Your task to perform on an android device: change text size in settings app Image 0: 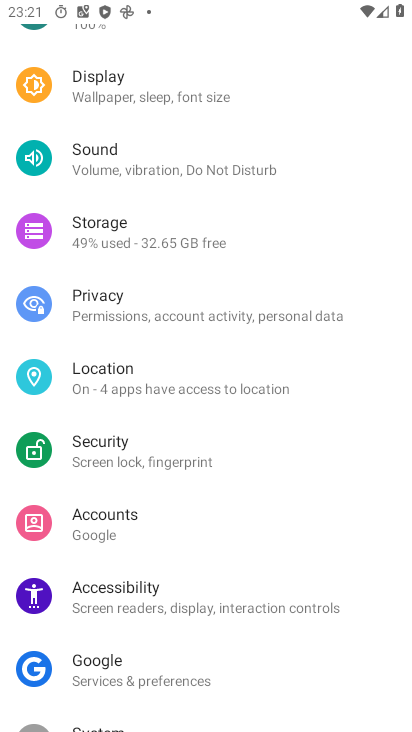
Step 0: press home button
Your task to perform on an android device: change text size in settings app Image 1: 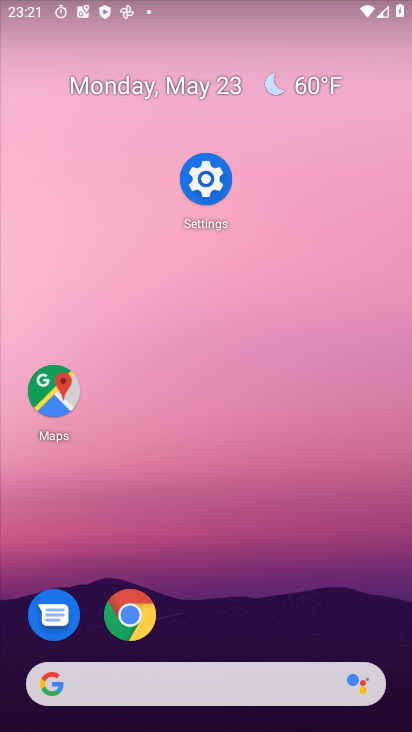
Step 1: click (208, 166)
Your task to perform on an android device: change text size in settings app Image 2: 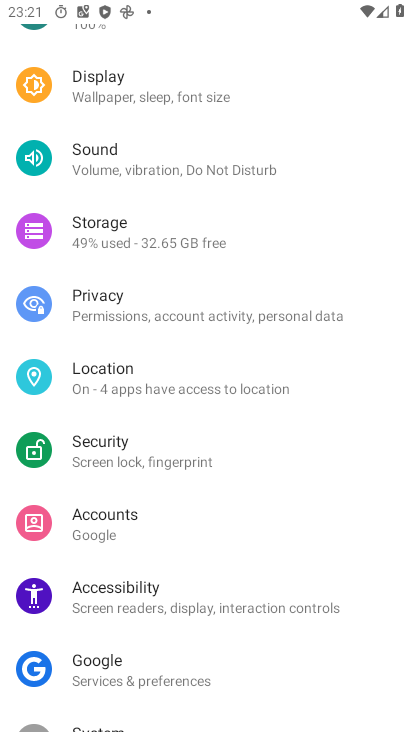
Step 2: click (127, 84)
Your task to perform on an android device: change text size in settings app Image 3: 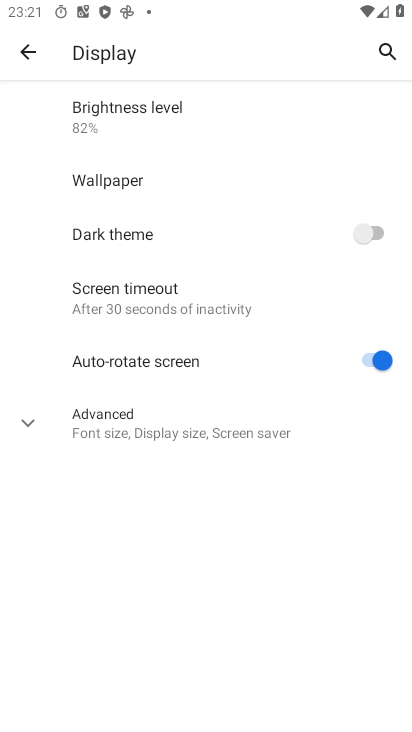
Step 3: click (155, 416)
Your task to perform on an android device: change text size in settings app Image 4: 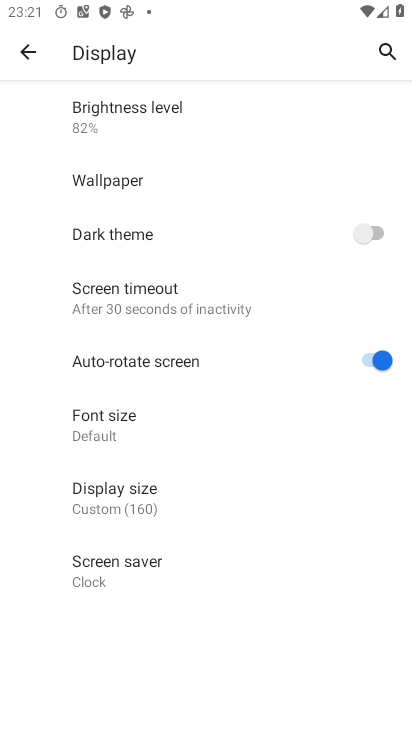
Step 4: click (137, 436)
Your task to perform on an android device: change text size in settings app Image 5: 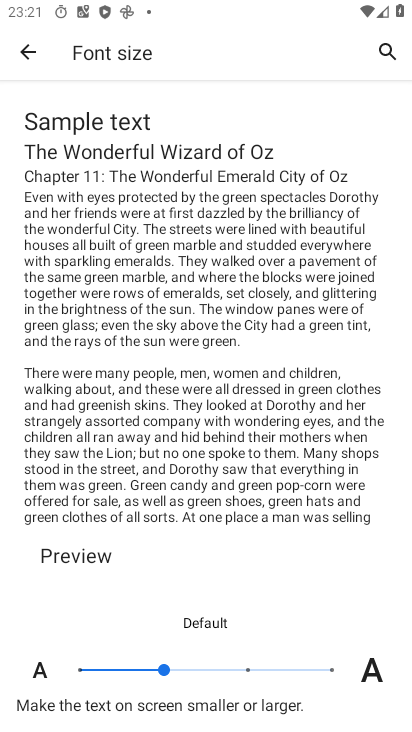
Step 5: task complete